Your task to perform on an android device: Go to Maps Image 0: 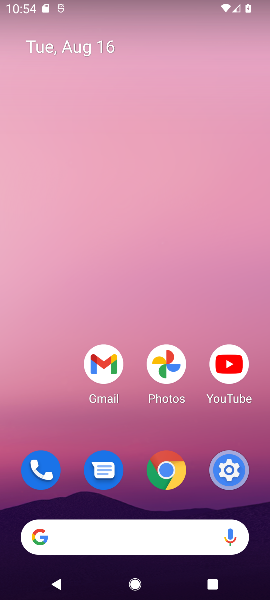
Step 0: drag from (53, 403) to (87, 23)
Your task to perform on an android device: Go to Maps Image 1: 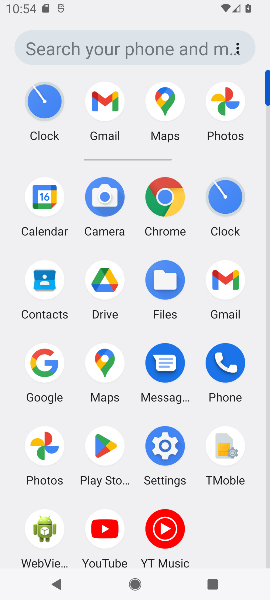
Step 1: click (166, 105)
Your task to perform on an android device: Go to Maps Image 2: 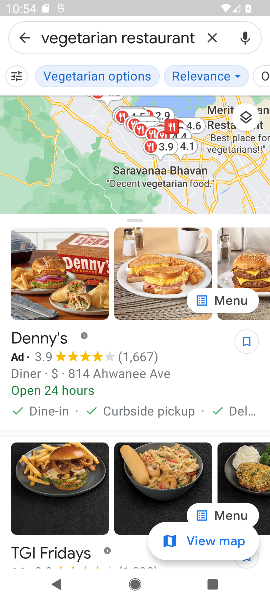
Step 2: click (212, 31)
Your task to perform on an android device: Go to Maps Image 3: 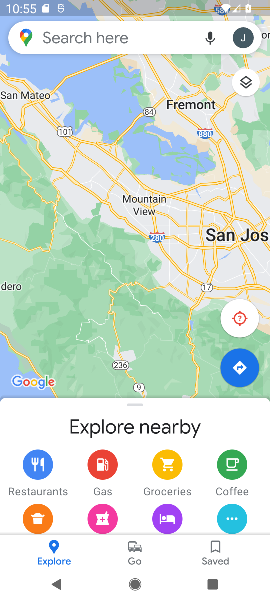
Step 3: task complete